Your task to perform on an android device: turn off picture-in-picture Image 0: 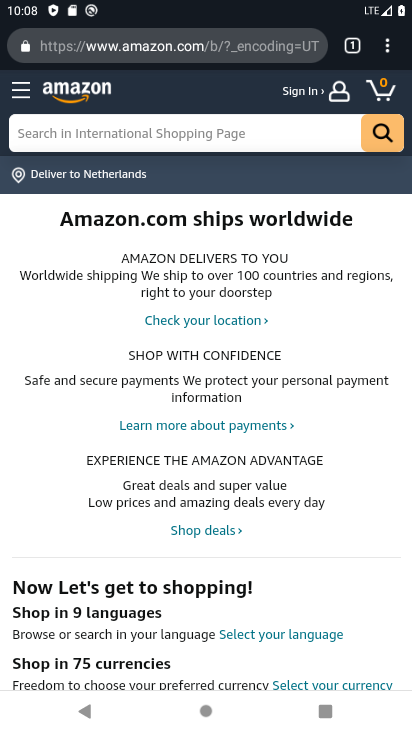
Step 0: press home button
Your task to perform on an android device: turn off picture-in-picture Image 1: 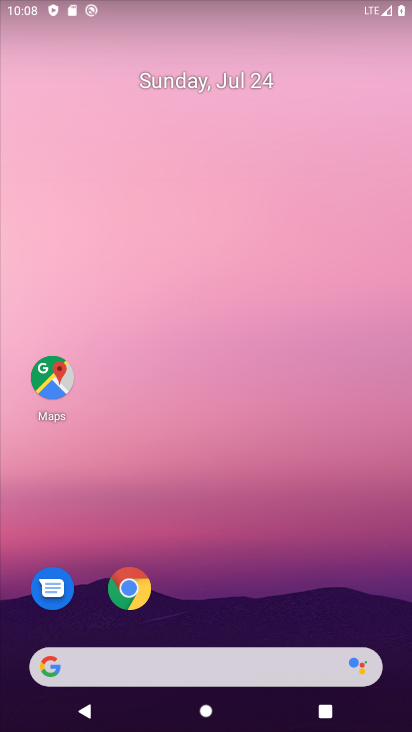
Step 1: click (119, 583)
Your task to perform on an android device: turn off picture-in-picture Image 2: 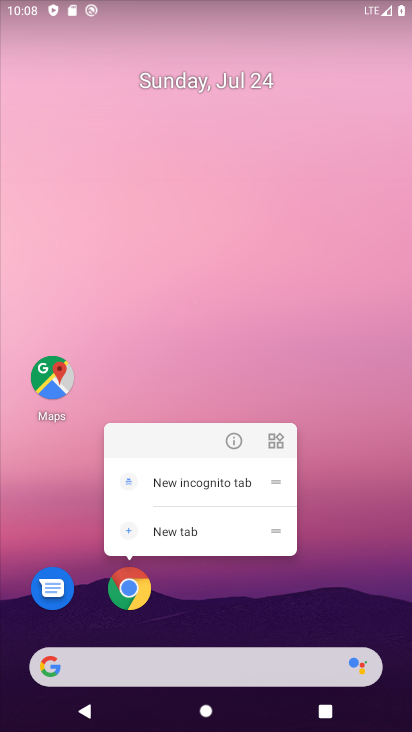
Step 2: click (235, 439)
Your task to perform on an android device: turn off picture-in-picture Image 3: 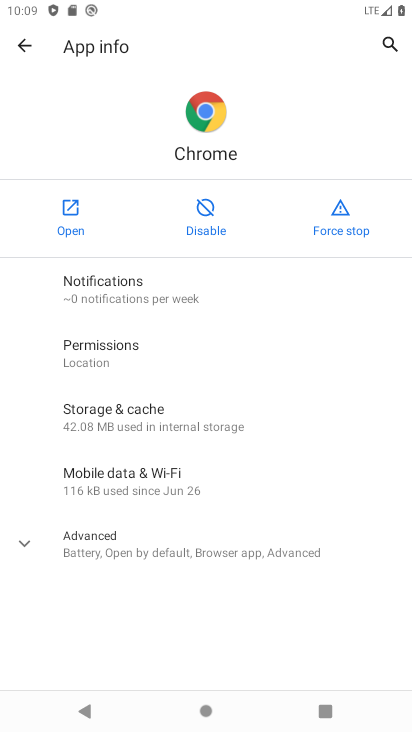
Step 3: click (217, 542)
Your task to perform on an android device: turn off picture-in-picture Image 4: 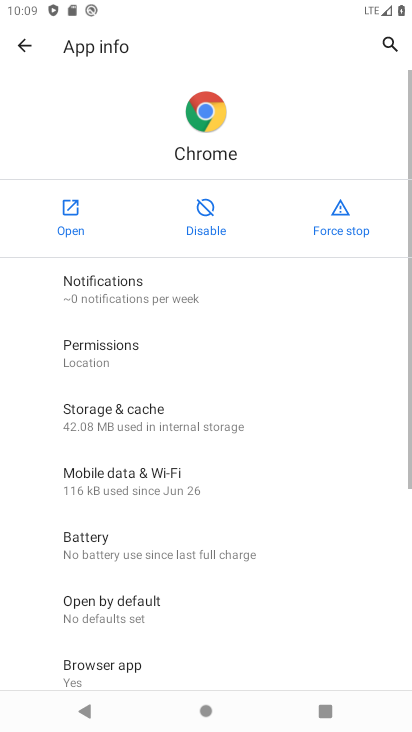
Step 4: drag from (238, 647) to (275, 64)
Your task to perform on an android device: turn off picture-in-picture Image 5: 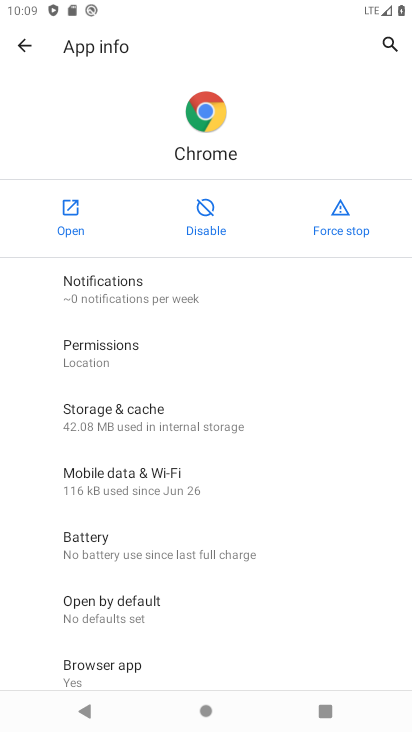
Step 5: drag from (259, 540) to (319, 16)
Your task to perform on an android device: turn off picture-in-picture Image 6: 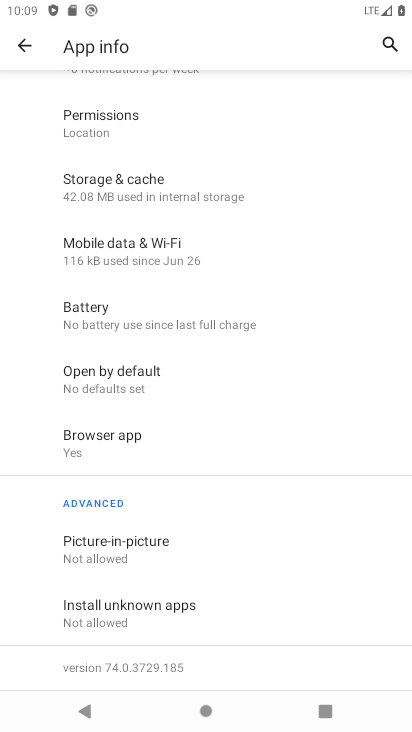
Step 6: click (140, 549)
Your task to perform on an android device: turn off picture-in-picture Image 7: 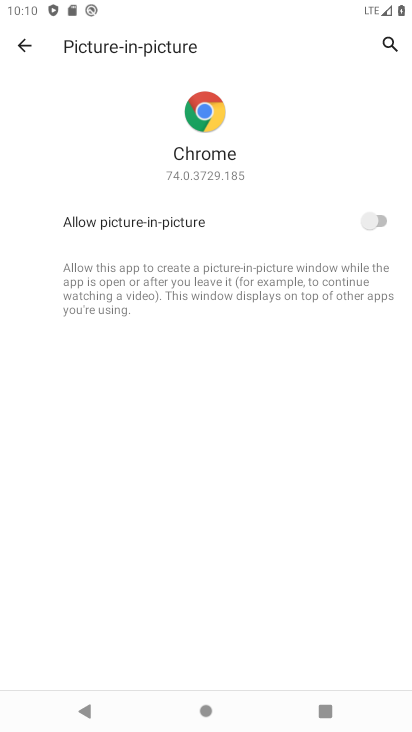
Step 7: task complete